Your task to perform on an android device: turn notification dots off Image 0: 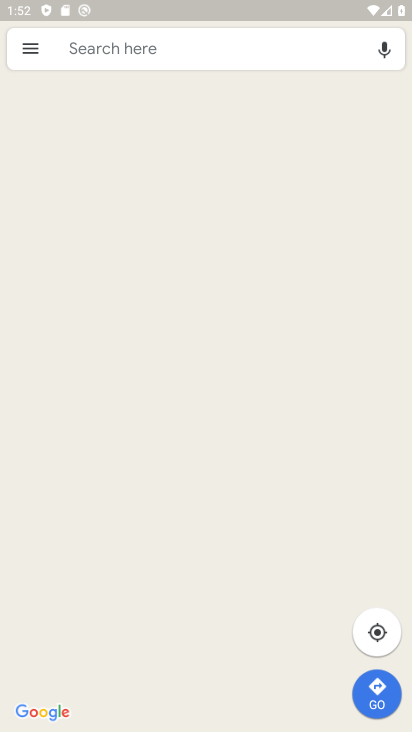
Step 0: drag from (363, 634) to (343, 347)
Your task to perform on an android device: turn notification dots off Image 1: 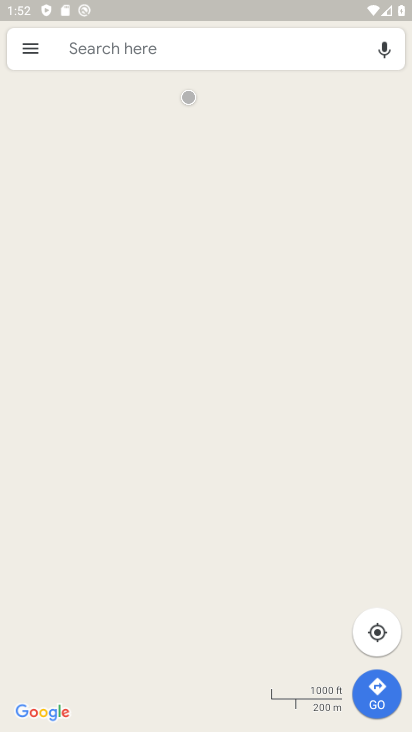
Step 1: press home button
Your task to perform on an android device: turn notification dots off Image 2: 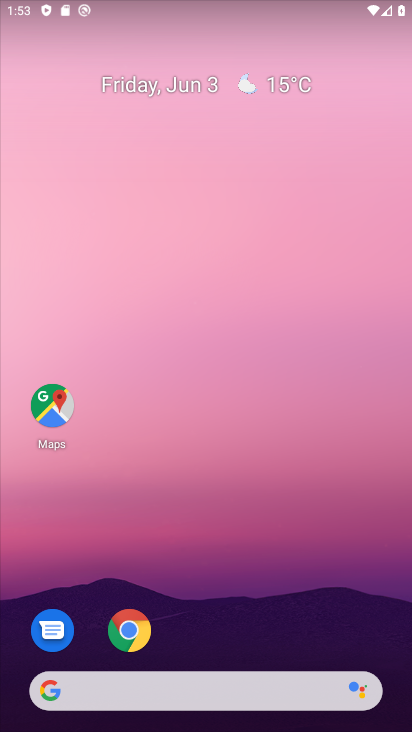
Step 2: drag from (355, 626) to (270, 107)
Your task to perform on an android device: turn notification dots off Image 3: 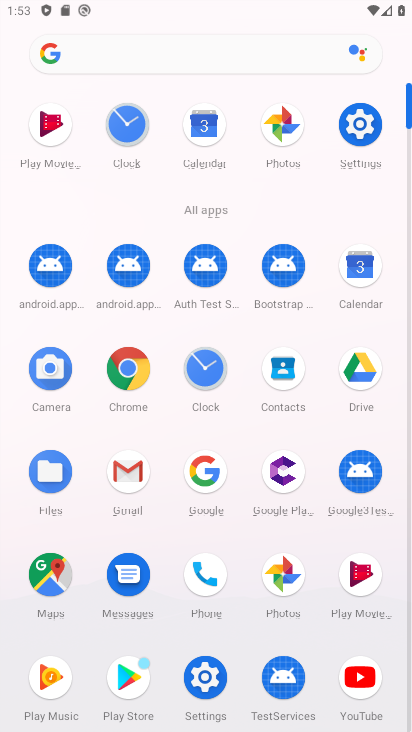
Step 3: click (347, 125)
Your task to perform on an android device: turn notification dots off Image 4: 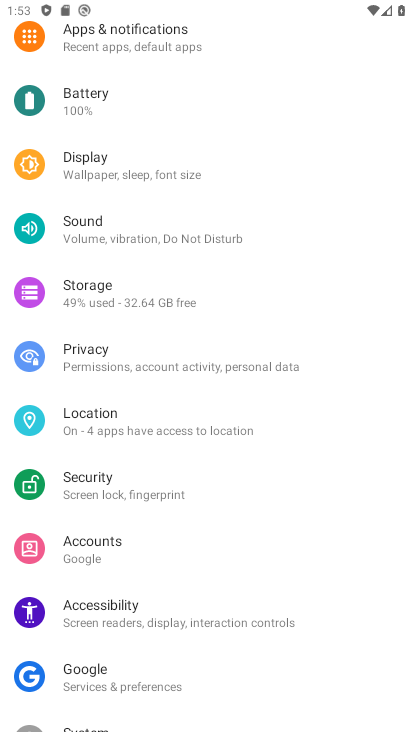
Step 4: click (147, 45)
Your task to perform on an android device: turn notification dots off Image 5: 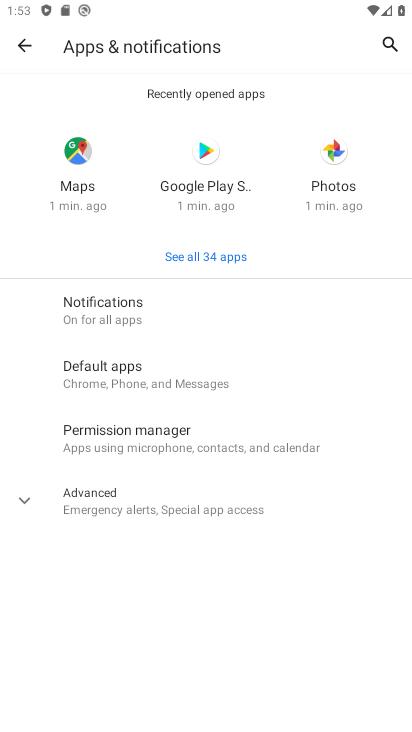
Step 5: click (144, 304)
Your task to perform on an android device: turn notification dots off Image 6: 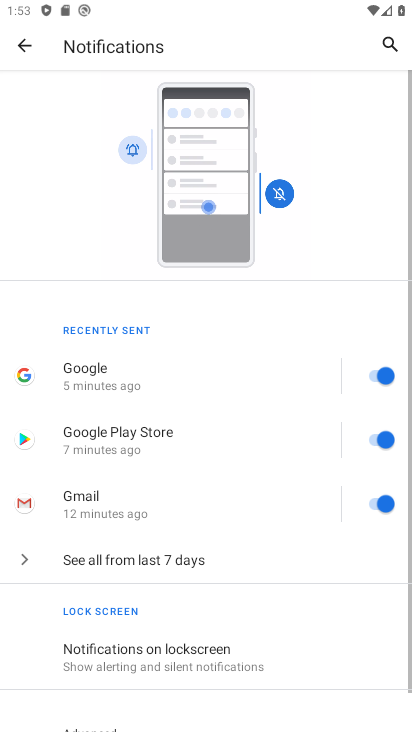
Step 6: drag from (154, 641) to (243, 358)
Your task to perform on an android device: turn notification dots off Image 7: 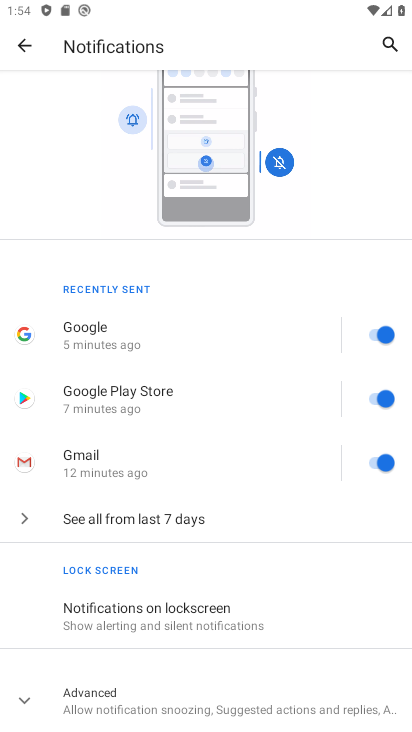
Step 7: click (121, 696)
Your task to perform on an android device: turn notification dots off Image 8: 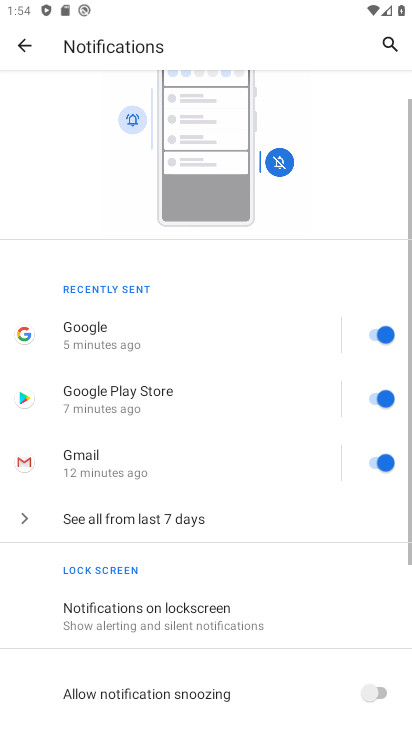
Step 8: drag from (166, 627) to (245, 418)
Your task to perform on an android device: turn notification dots off Image 9: 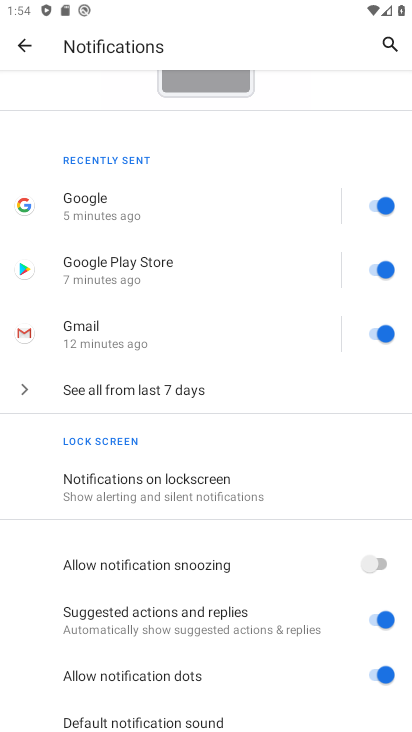
Step 9: drag from (166, 526) to (180, 326)
Your task to perform on an android device: turn notification dots off Image 10: 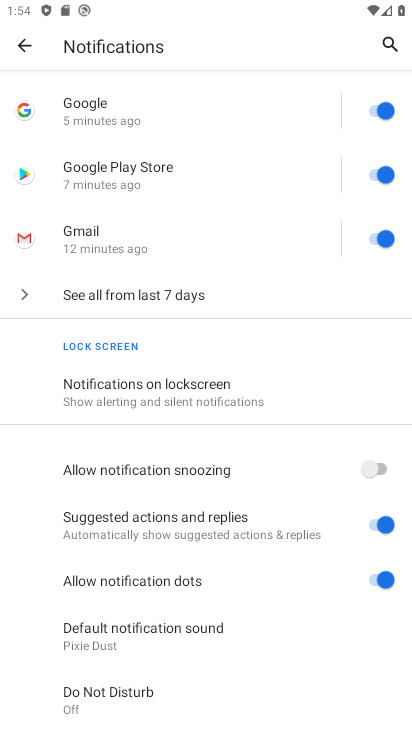
Step 10: click (173, 586)
Your task to perform on an android device: turn notification dots off Image 11: 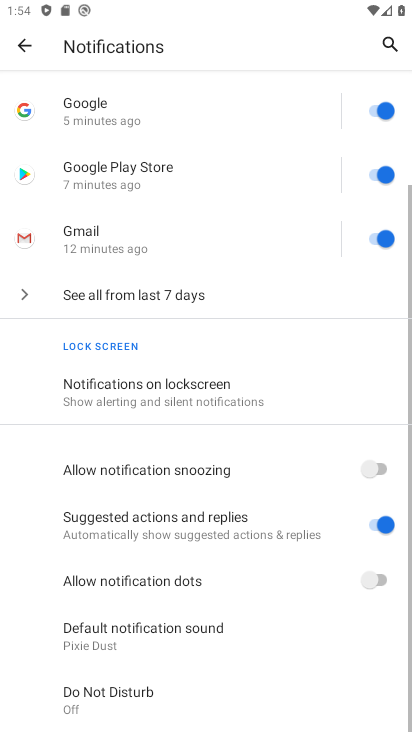
Step 11: task complete